Your task to perform on an android device: Go to Amazon Image 0: 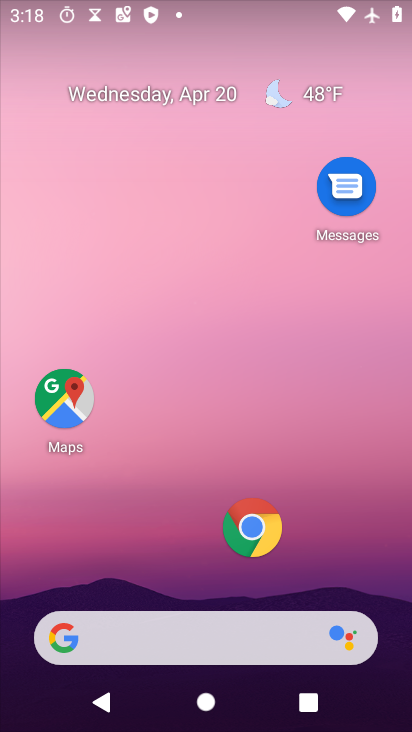
Step 0: drag from (197, 639) to (358, 75)
Your task to perform on an android device: Go to Amazon Image 1: 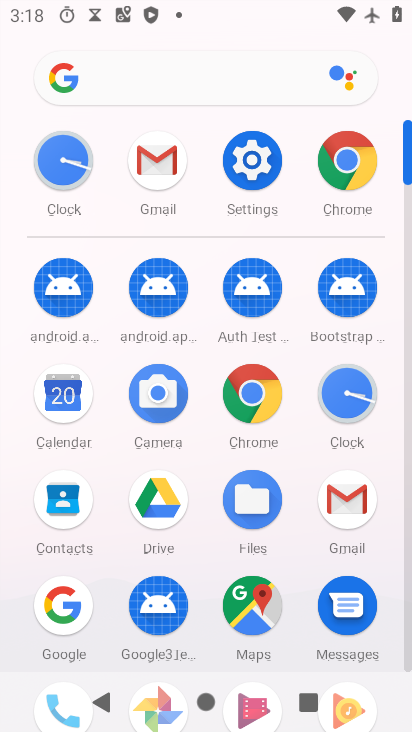
Step 1: click (346, 184)
Your task to perform on an android device: Go to Amazon Image 2: 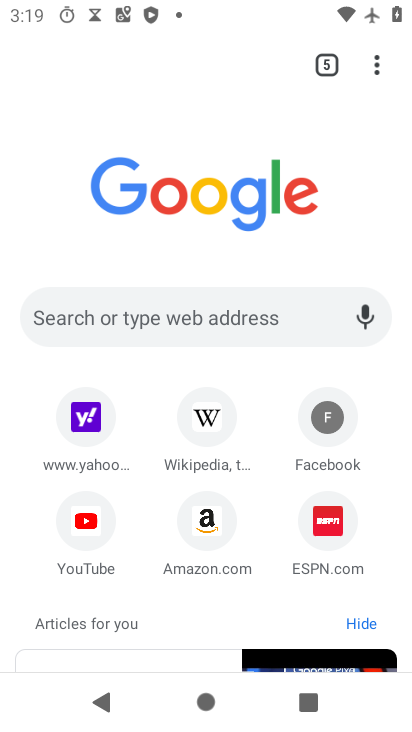
Step 2: click (210, 523)
Your task to perform on an android device: Go to Amazon Image 3: 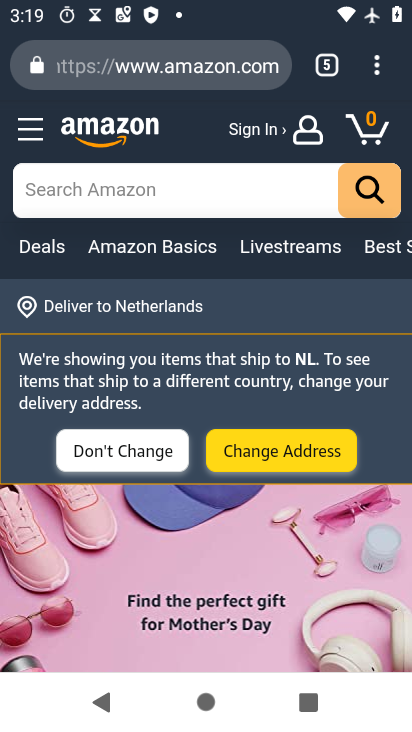
Step 3: task complete